Your task to perform on an android device: Open my contact list Image 0: 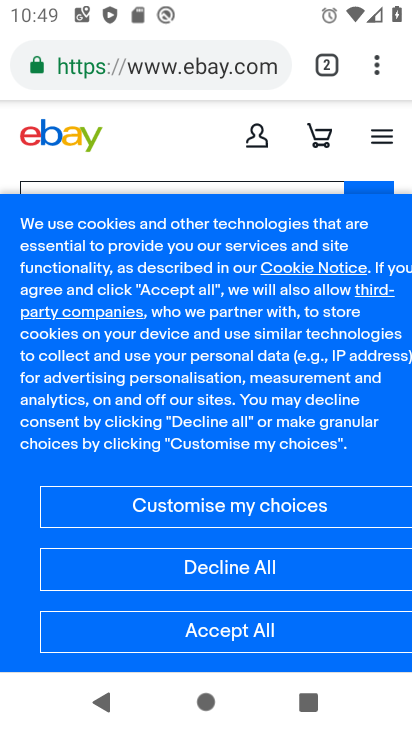
Step 0: press home button
Your task to perform on an android device: Open my contact list Image 1: 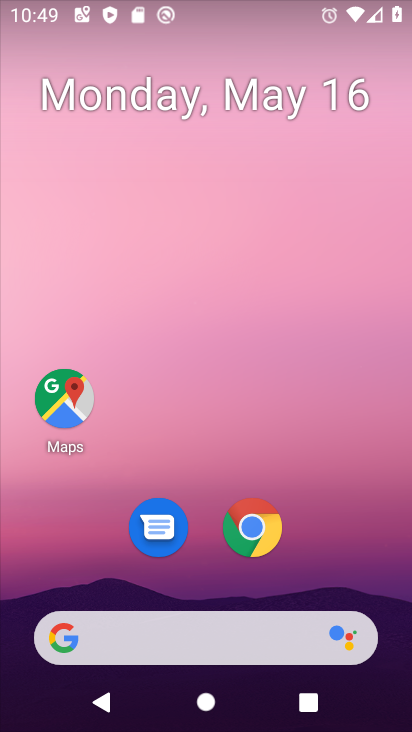
Step 1: drag from (353, 570) to (277, 14)
Your task to perform on an android device: Open my contact list Image 2: 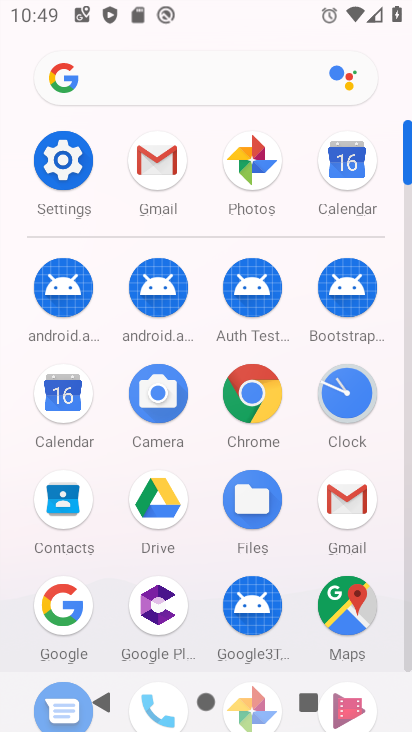
Step 2: click (61, 503)
Your task to perform on an android device: Open my contact list Image 3: 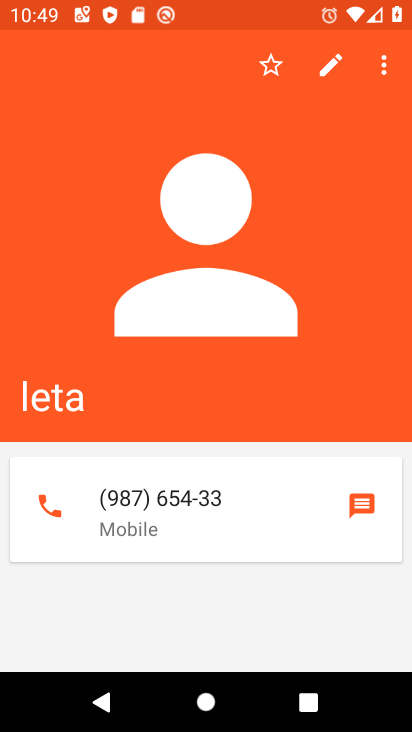
Step 3: task complete